Your task to perform on an android device: Open CNN.com Image 0: 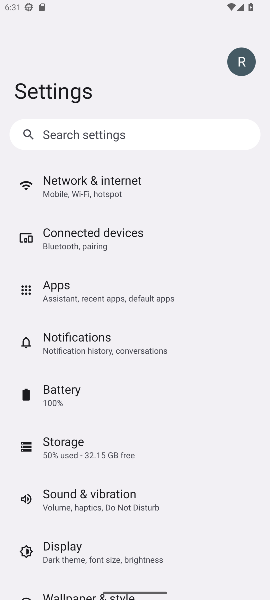
Step 0: press home button
Your task to perform on an android device: Open CNN.com Image 1: 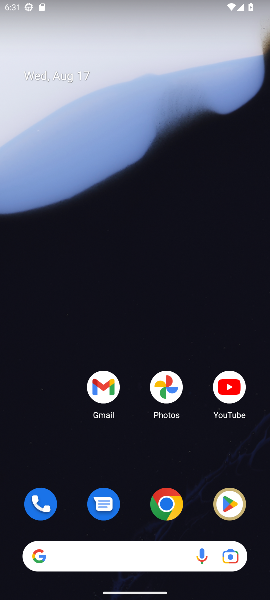
Step 1: drag from (142, 287) to (118, 19)
Your task to perform on an android device: Open CNN.com Image 2: 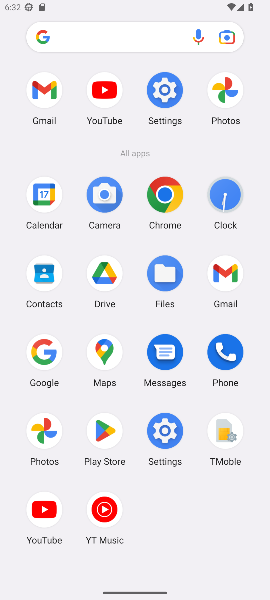
Step 2: click (177, 208)
Your task to perform on an android device: Open CNN.com Image 3: 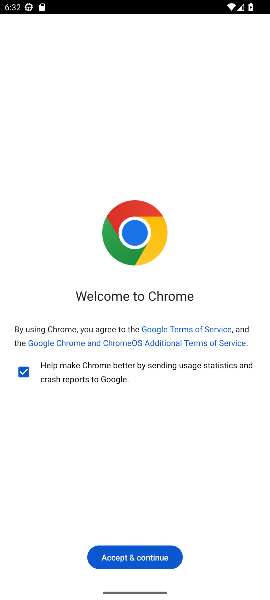
Step 3: click (123, 559)
Your task to perform on an android device: Open CNN.com Image 4: 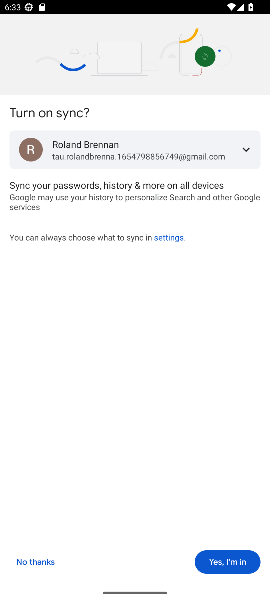
Step 4: click (48, 556)
Your task to perform on an android device: Open CNN.com Image 5: 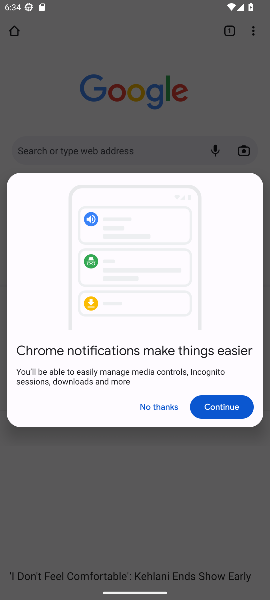
Step 5: click (150, 414)
Your task to perform on an android device: Open CNN.com Image 6: 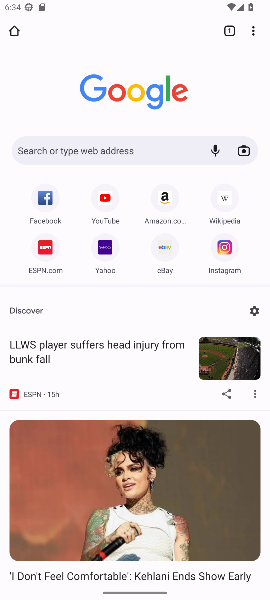
Step 6: click (74, 149)
Your task to perform on an android device: Open CNN.com Image 7: 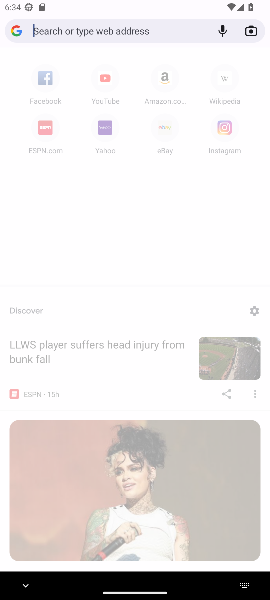
Step 7: type "CNN.com"
Your task to perform on an android device: Open CNN.com Image 8: 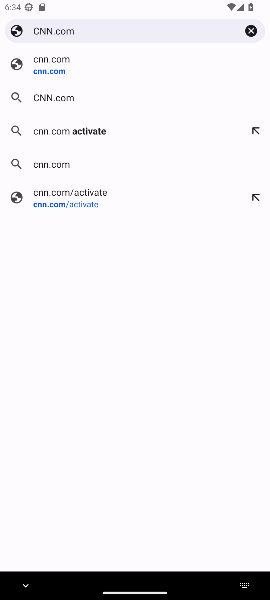
Step 8: click (81, 75)
Your task to perform on an android device: Open CNN.com Image 9: 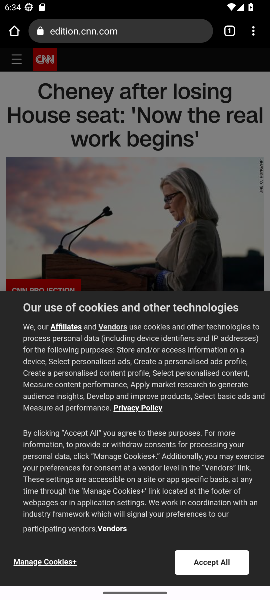
Step 9: click (197, 574)
Your task to perform on an android device: Open CNN.com Image 10: 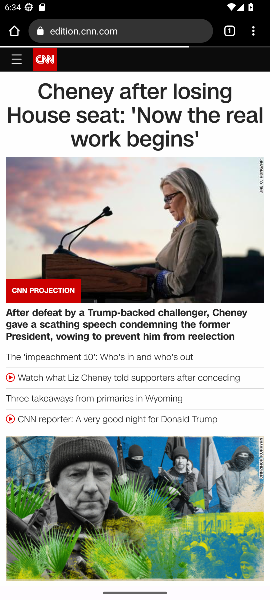
Step 10: task complete